Your task to perform on an android device: Go to location settings Image 0: 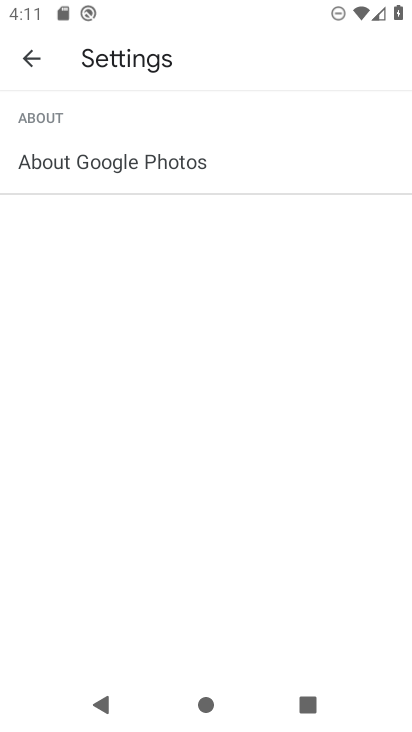
Step 0: press home button
Your task to perform on an android device: Go to location settings Image 1: 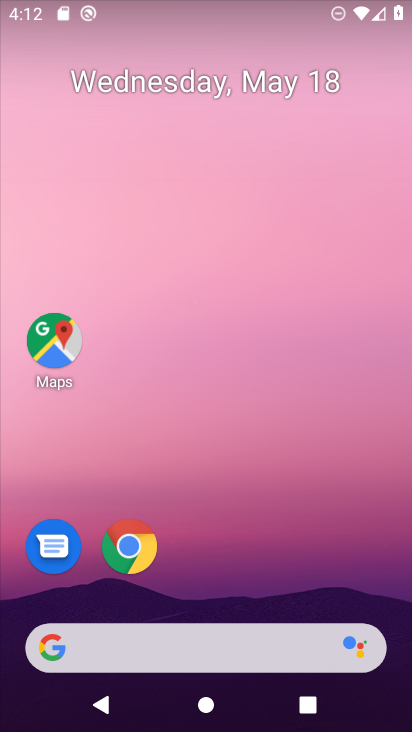
Step 1: drag from (276, 487) to (340, 27)
Your task to perform on an android device: Go to location settings Image 2: 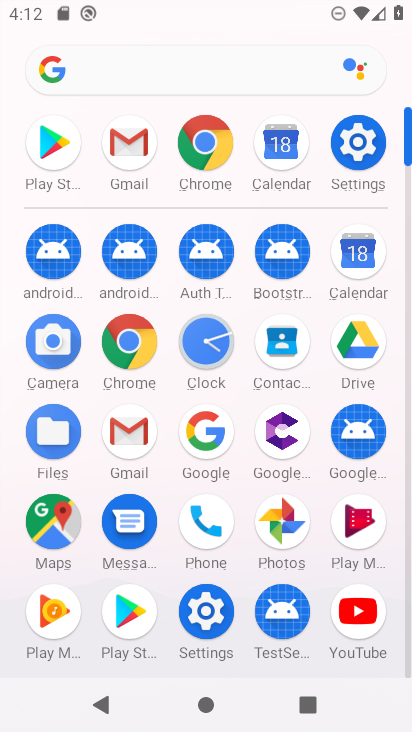
Step 2: click (352, 186)
Your task to perform on an android device: Go to location settings Image 3: 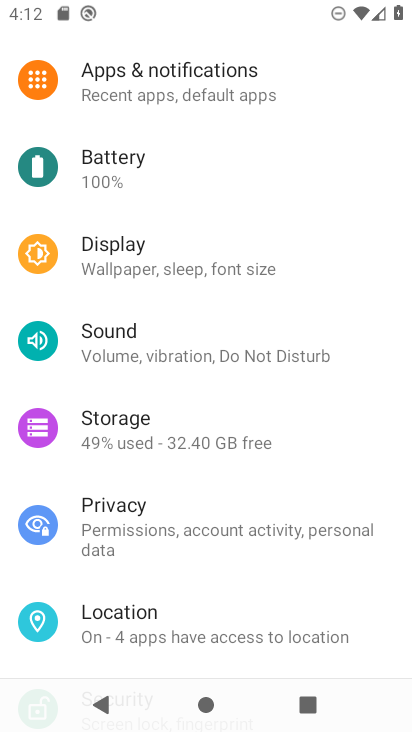
Step 3: click (130, 632)
Your task to perform on an android device: Go to location settings Image 4: 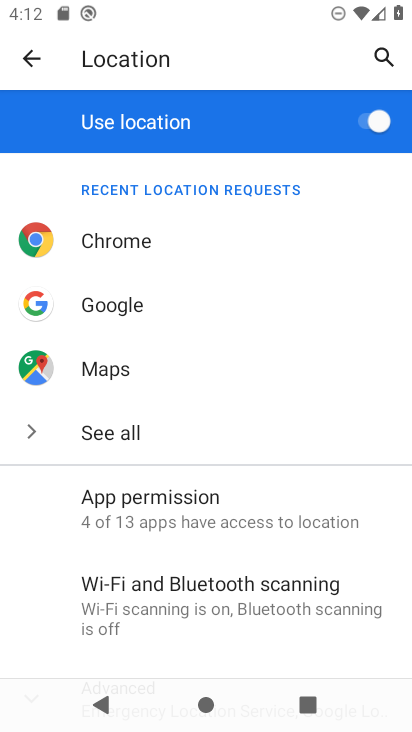
Step 4: task complete